Your task to perform on an android device: Check the news Image 0: 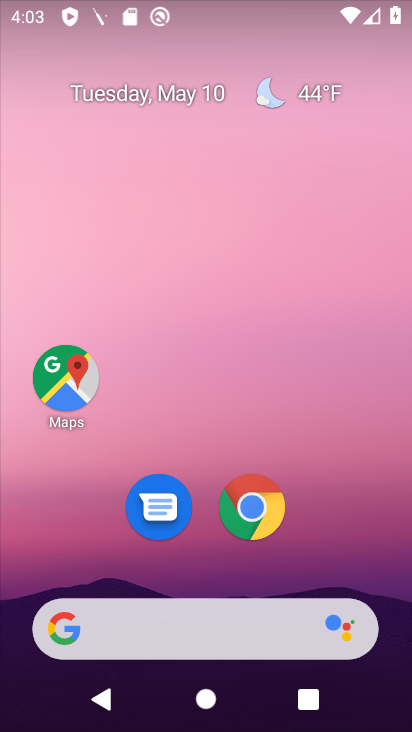
Step 0: click (246, 521)
Your task to perform on an android device: Check the news Image 1: 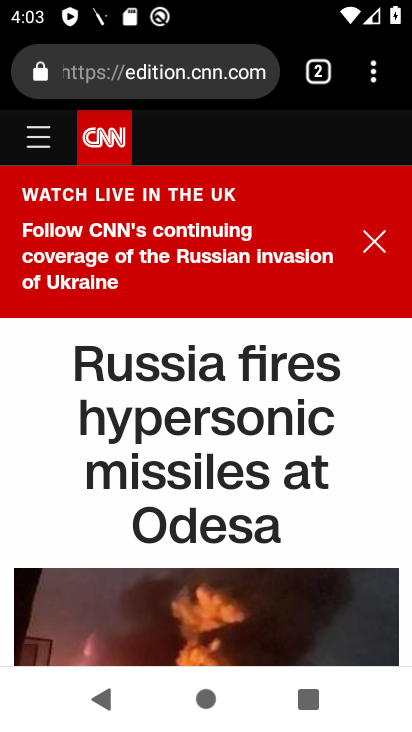
Step 1: task complete